Your task to perform on an android device: Open sound settings Image 0: 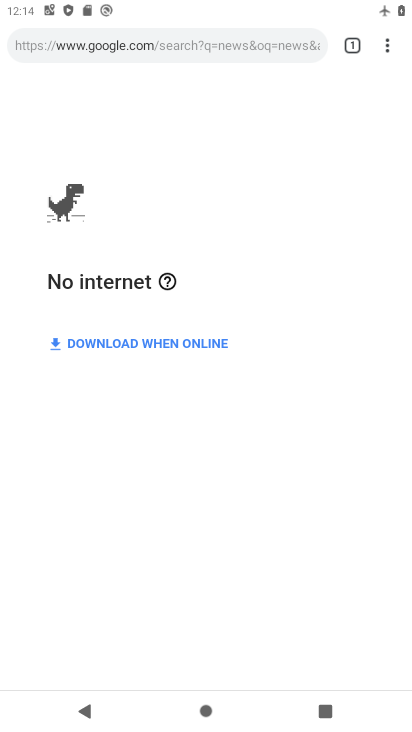
Step 0: press home button
Your task to perform on an android device: Open sound settings Image 1: 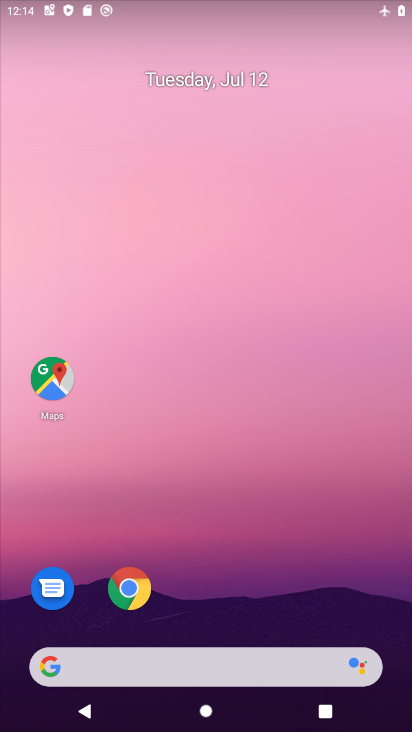
Step 1: drag from (287, 549) to (187, 67)
Your task to perform on an android device: Open sound settings Image 2: 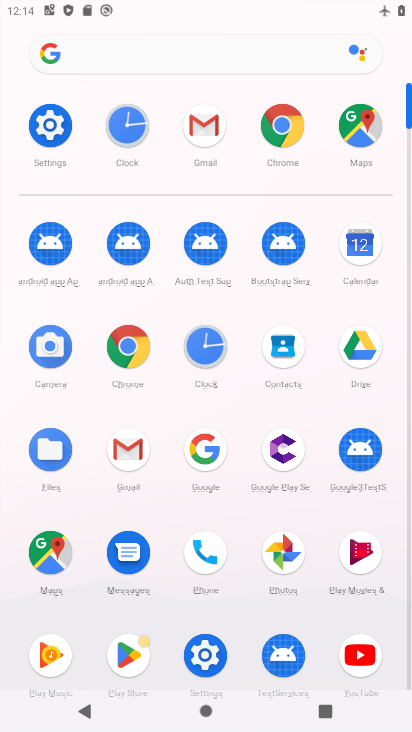
Step 2: click (53, 124)
Your task to perform on an android device: Open sound settings Image 3: 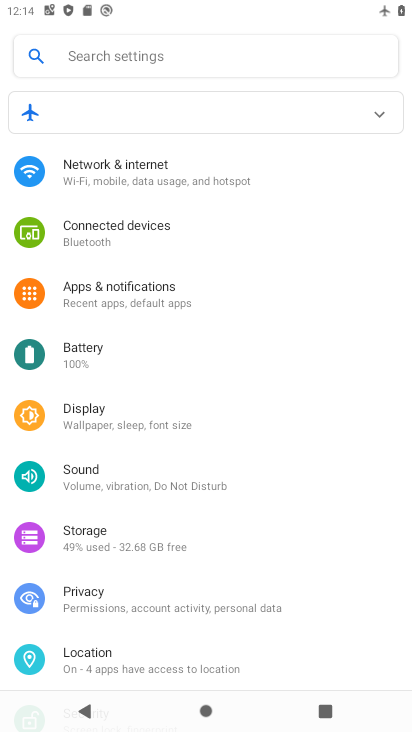
Step 3: click (153, 476)
Your task to perform on an android device: Open sound settings Image 4: 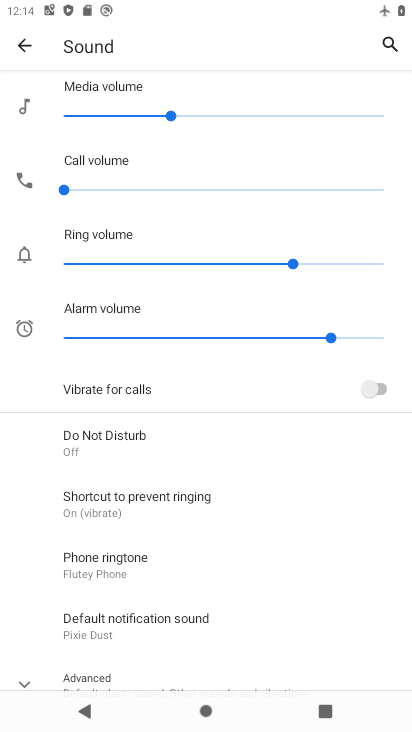
Step 4: task complete